Your task to perform on an android device: Open Youtube and go to the subscriptions tab Image 0: 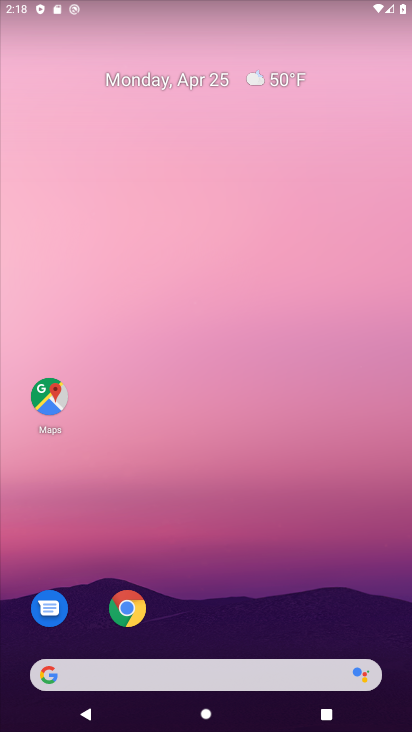
Step 0: drag from (188, 586) to (254, 206)
Your task to perform on an android device: Open Youtube and go to the subscriptions tab Image 1: 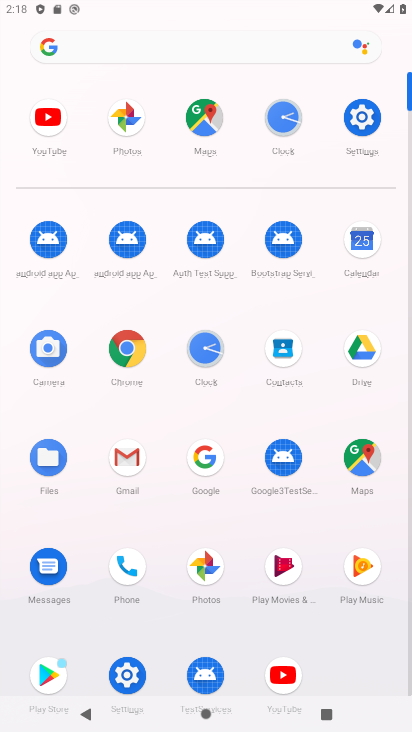
Step 1: click (282, 669)
Your task to perform on an android device: Open Youtube and go to the subscriptions tab Image 2: 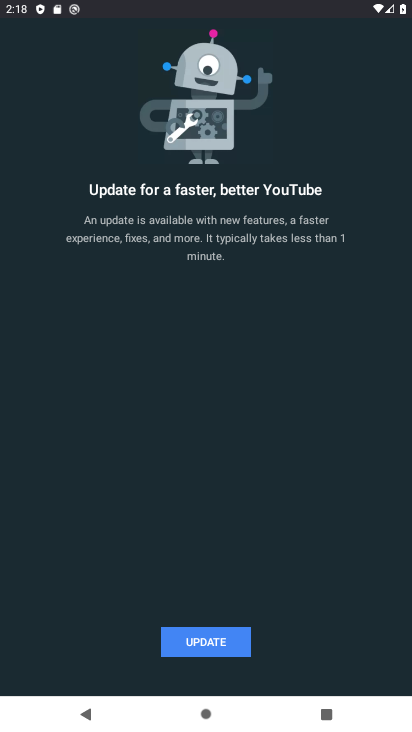
Step 2: click (233, 630)
Your task to perform on an android device: Open Youtube and go to the subscriptions tab Image 3: 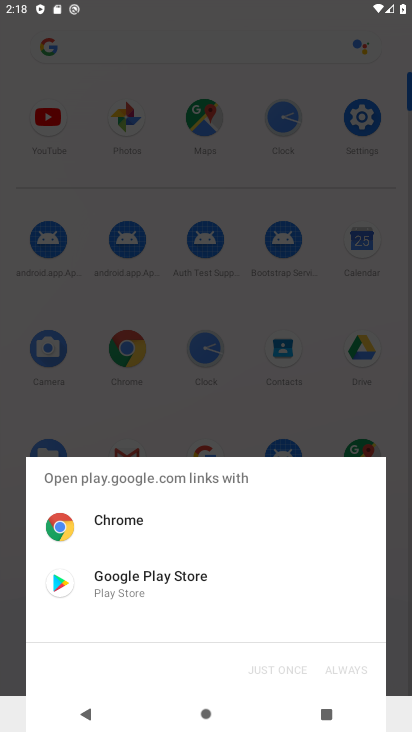
Step 3: click (202, 582)
Your task to perform on an android device: Open Youtube and go to the subscriptions tab Image 4: 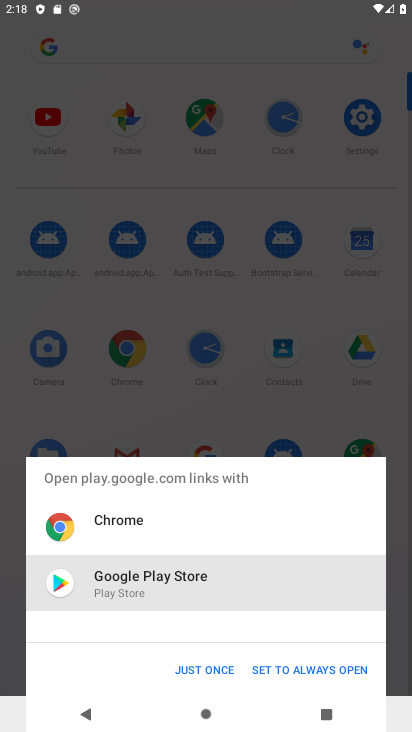
Step 4: click (205, 670)
Your task to perform on an android device: Open Youtube and go to the subscriptions tab Image 5: 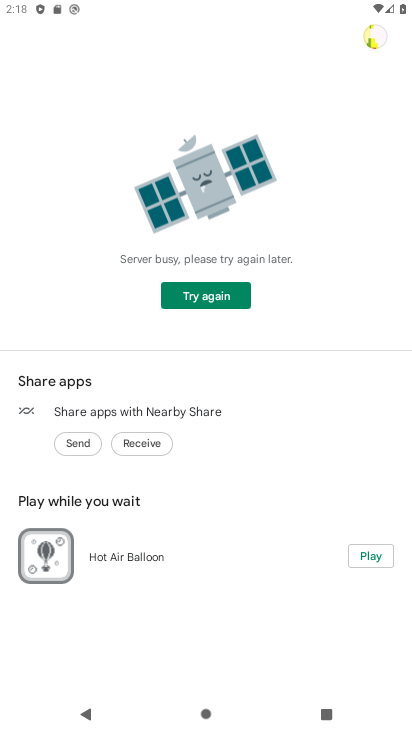
Step 5: press back button
Your task to perform on an android device: Open Youtube and go to the subscriptions tab Image 6: 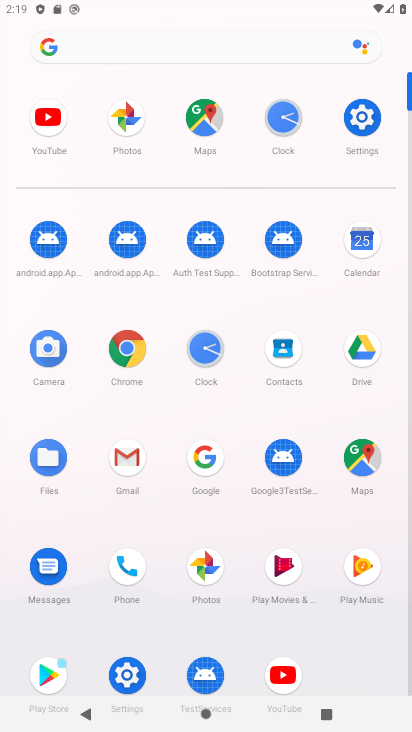
Step 6: click (278, 665)
Your task to perform on an android device: Open Youtube and go to the subscriptions tab Image 7: 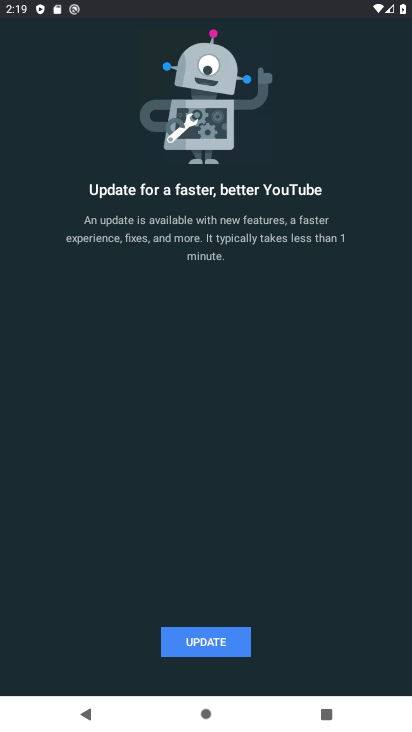
Step 7: click (205, 635)
Your task to perform on an android device: Open Youtube and go to the subscriptions tab Image 8: 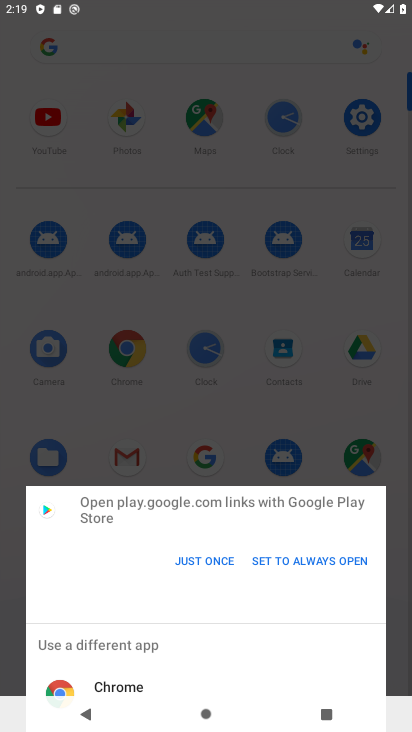
Step 8: click (191, 562)
Your task to perform on an android device: Open Youtube and go to the subscriptions tab Image 9: 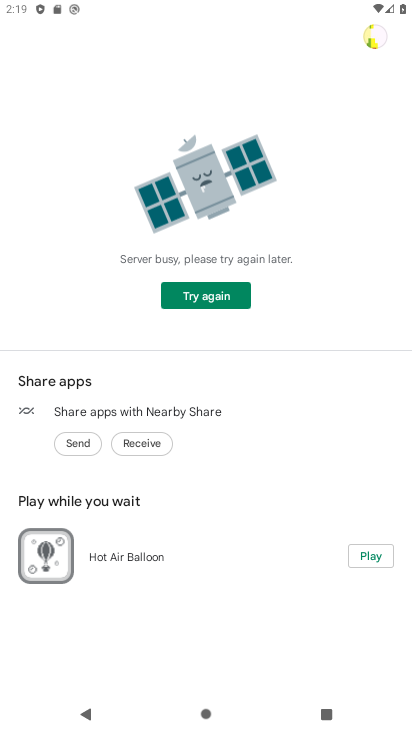
Step 9: task complete